Your task to perform on an android device: Open accessibility settings Image 0: 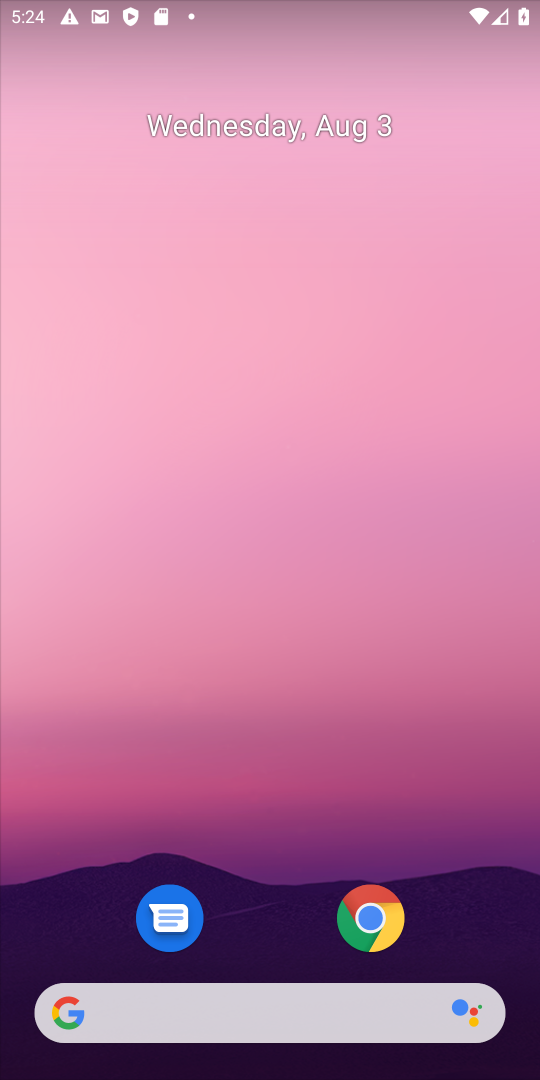
Step 0: drag from (278, 1007) to (209, 301)
Your task to perform on an android device: Open accessibility settings Image 1: 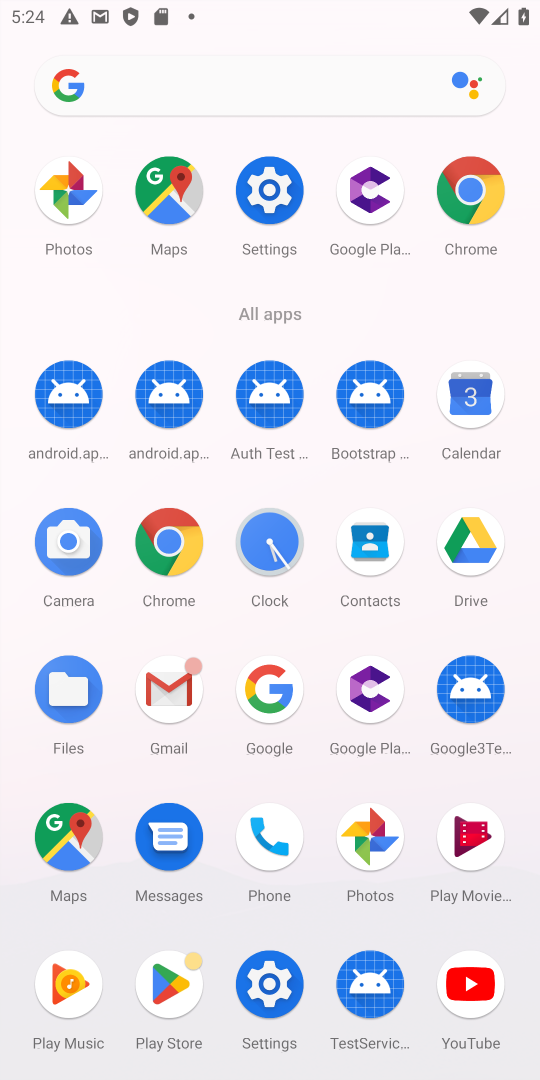
Step 1: click (267, 986)
Your task to perform on an android device: Open accessibility settings Image 2: 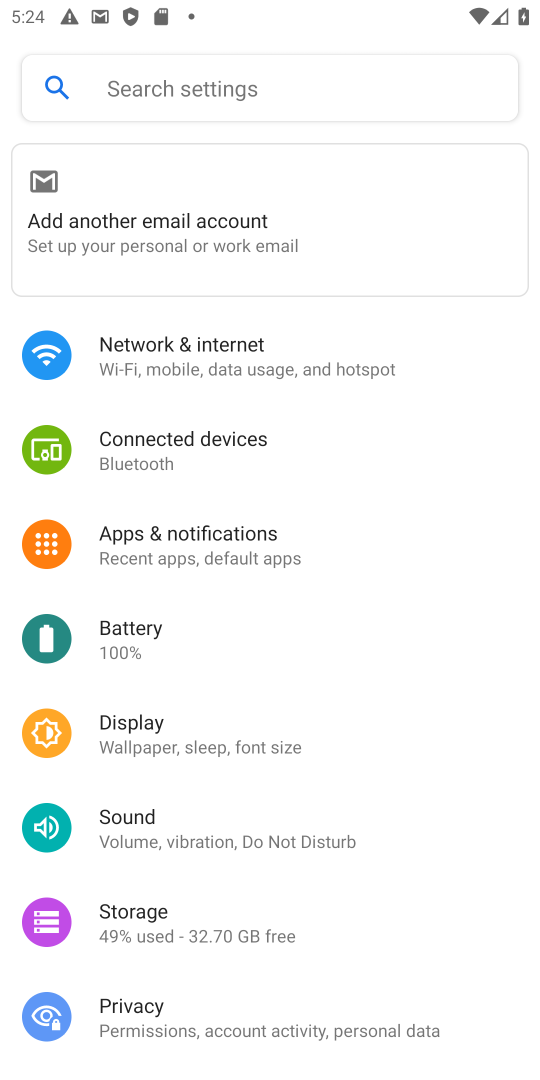
Step 2: drag from (85, 915) to (37, 140)
Your task to perform on an android device: Open accessibility settings Image 3: 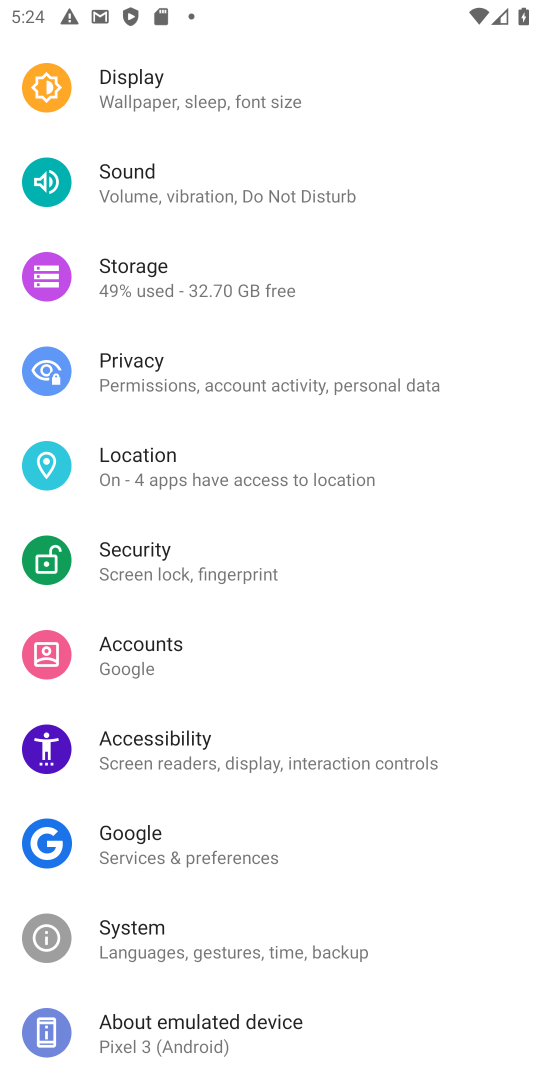
Step 3: click (129, 734)
Your task to perform on an android device: Open accessibility settings Image 4: 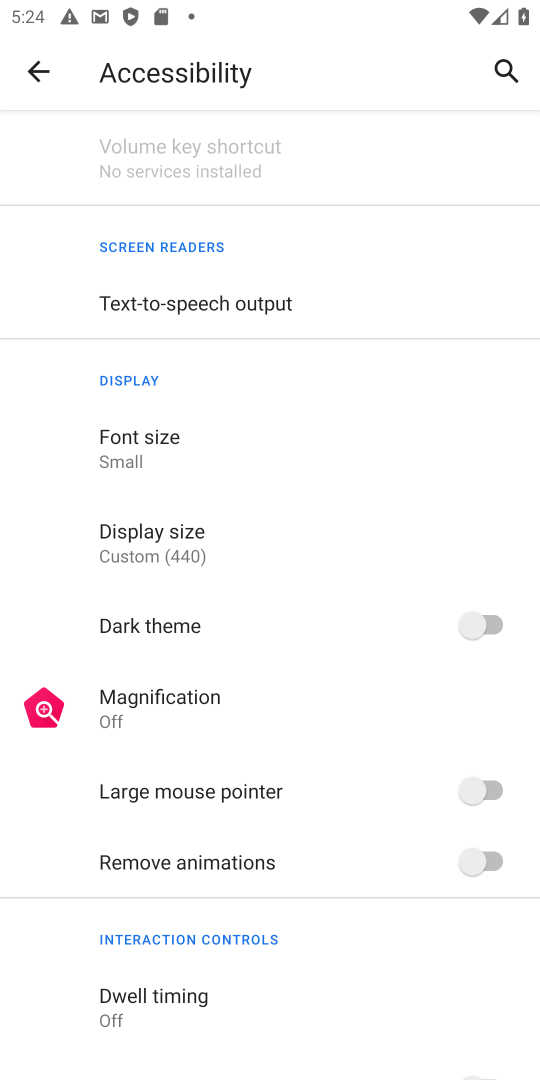
Step 4: task complete